Your task to perform on an android device: Go to notification settings Image 0: 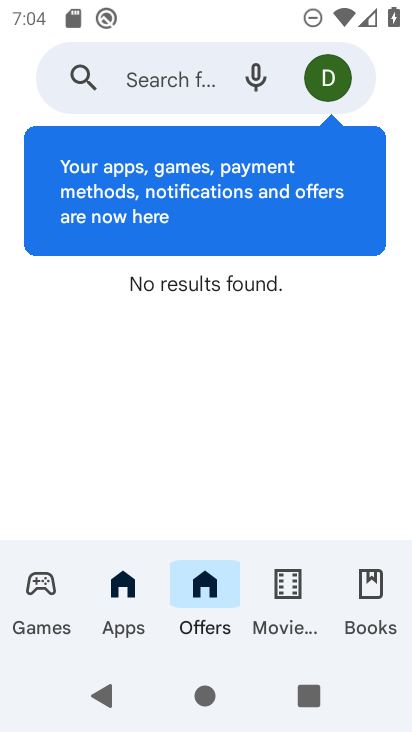
Step 0: press home button
Your task to perform on an android device: Go to notification settings Image 1: 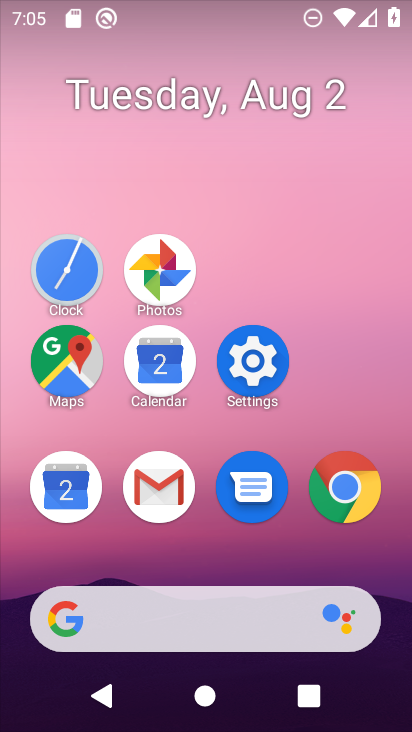
Step 1: click (252, 362)
Your task to perform on an android device: Go to notification settings Image 2: 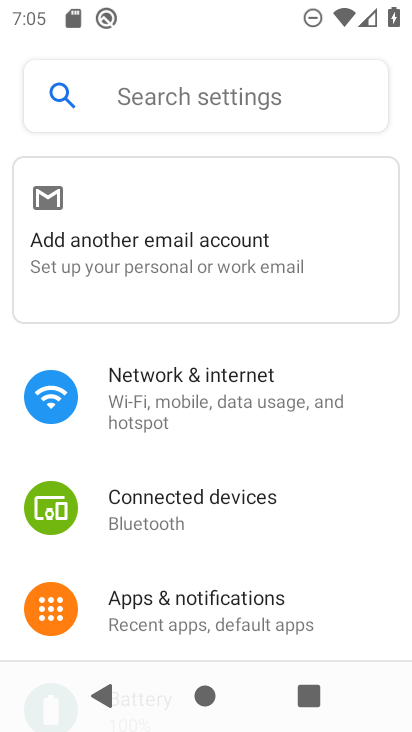
Step 2: click (193, 600)
Your task to perform on an android device: Go to notification settings Image 3: 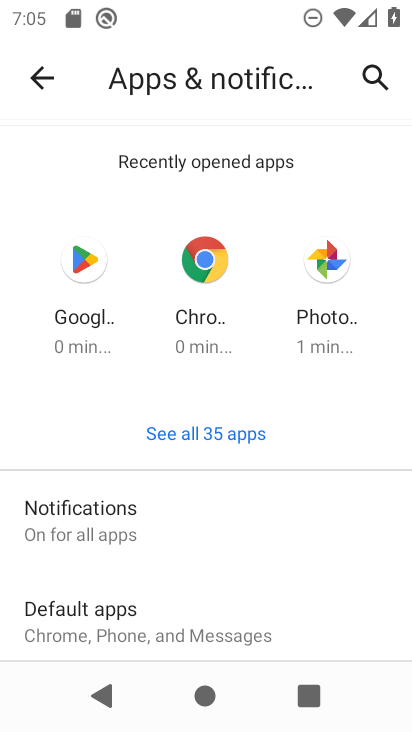
Step 3: task complete